Your task to perform on an android device: Go to Google Image 0: 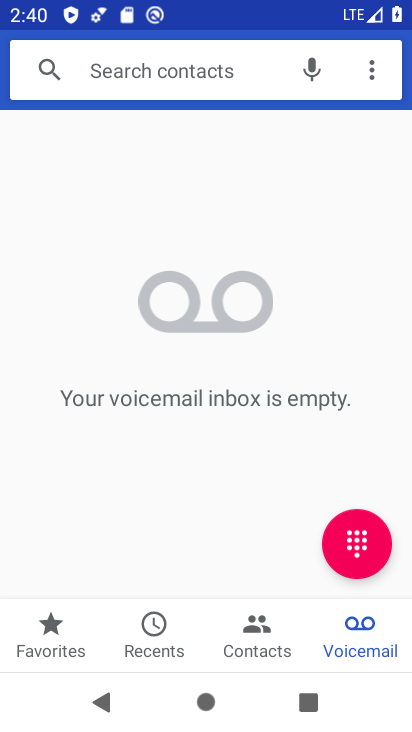
Step 0: press home button
Your task to perform on an android device: Go to Google Image 1: 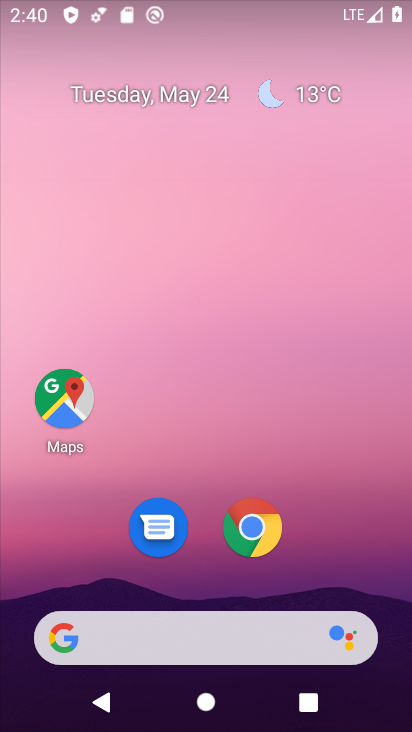
Step 1: drag from (222, 313) to (223, 28)
Your task to perform on an android device: Go to Google Image 2: 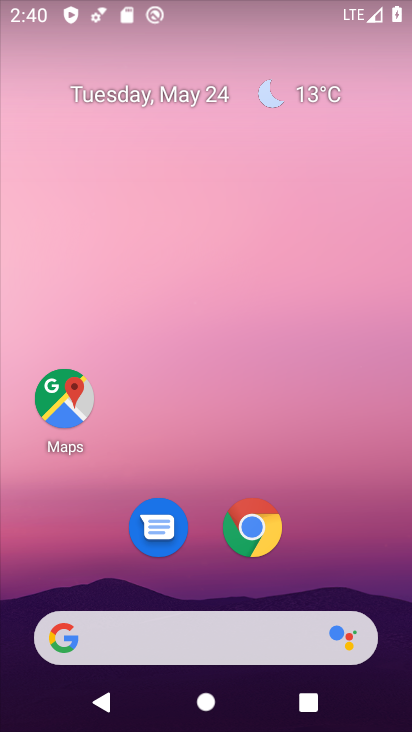
Step 2: drag from (197, 481) to (228, 55)
Your task to perform on an android device: Go to Google Image 3: 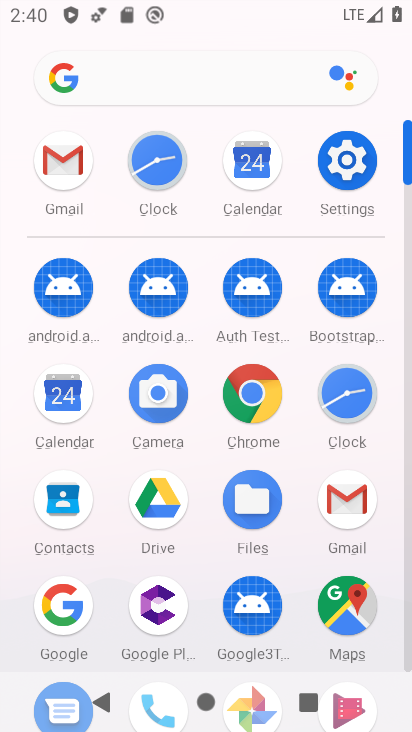
Step 3: click (54, 608)
Your task to perform on an android device: Go to Google Image 4: 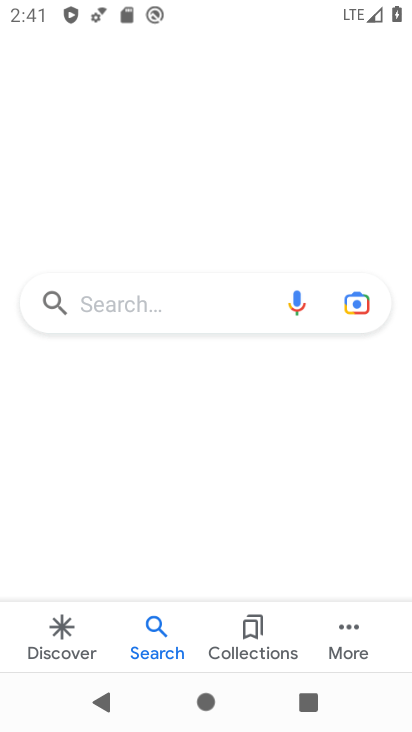
Step 4: task complete